Your task to perform on an android device: What's the news about the US? Image 0: 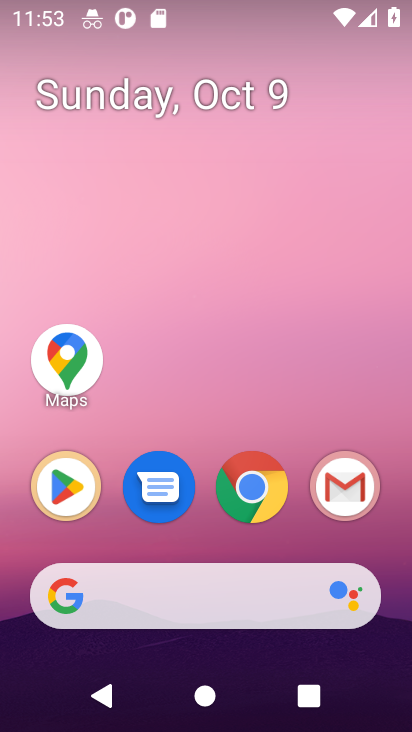
Step 0: click (271, 508)
Your task to perform on an android device: What's the news about the US? Image 1: 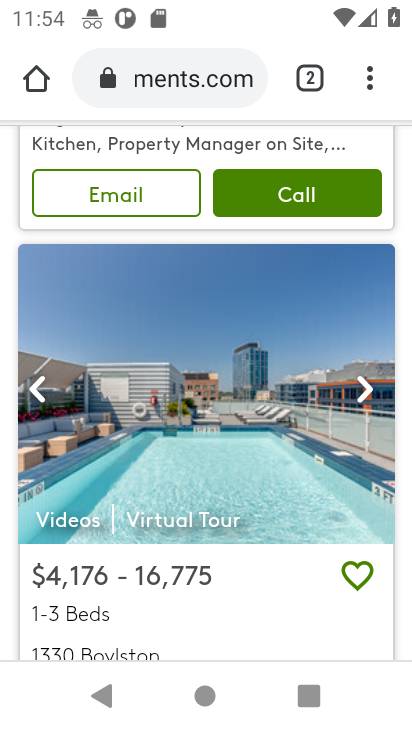
Step 1: click (194, 84)
Your task to perform on an android device: What's the news about the US? Image 2: 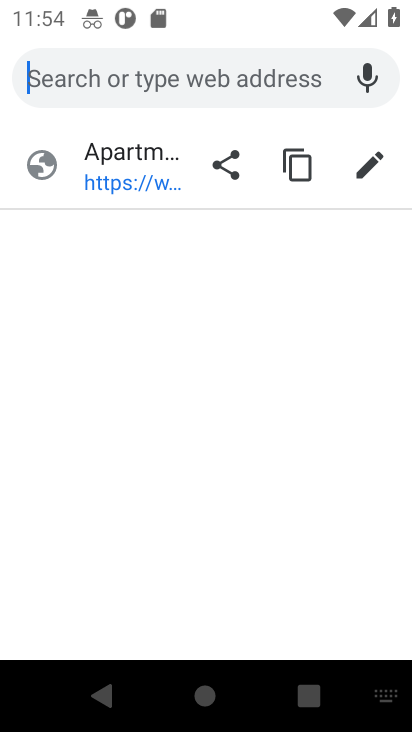
Step 2: type "news about the US"
Your task to perform on an android device: What's the news about the US? Image 3: 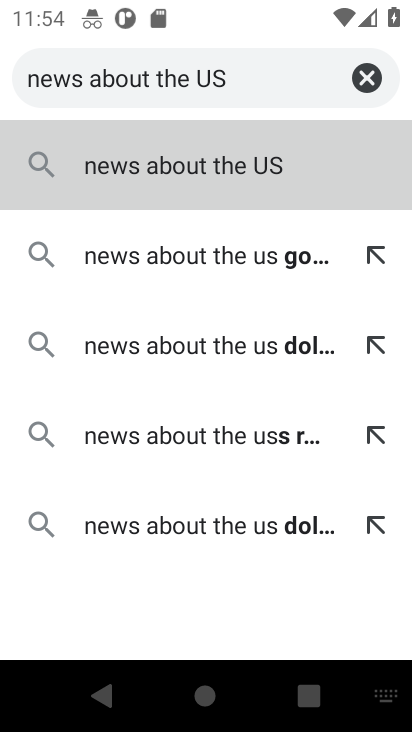
Step 3: type ""
Your task to perform on an android device: What's the news about the US? Image 4: 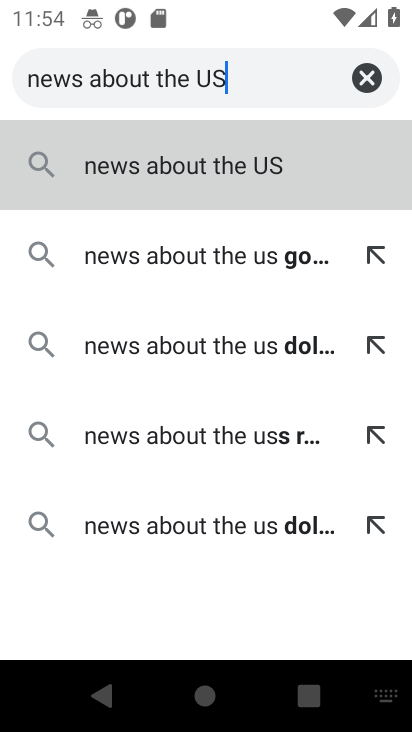
Step 4: press enter
Your task to perform on an android device: What's the news about the US? Image 5: 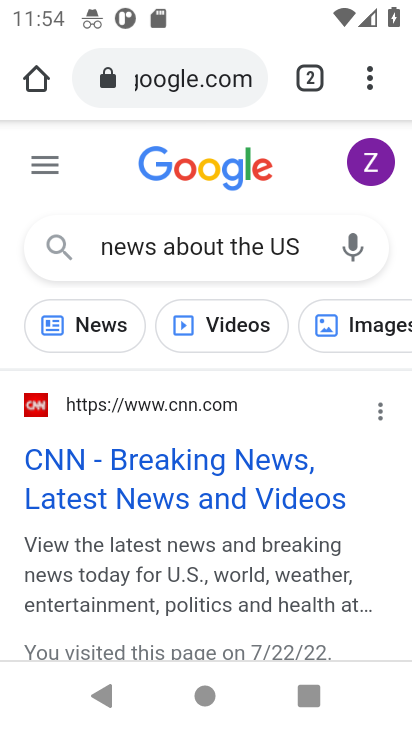
Step 5: press enter
Your task to perform on an android device: What's the news about the US? Image 6: 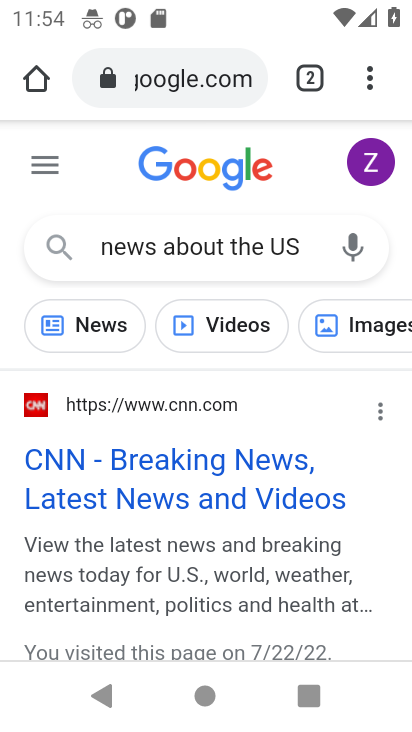
Step 6: drag from (225, 599) to (239, 540)
Your task to perform on an android device: What's the news about the US? Image 7: 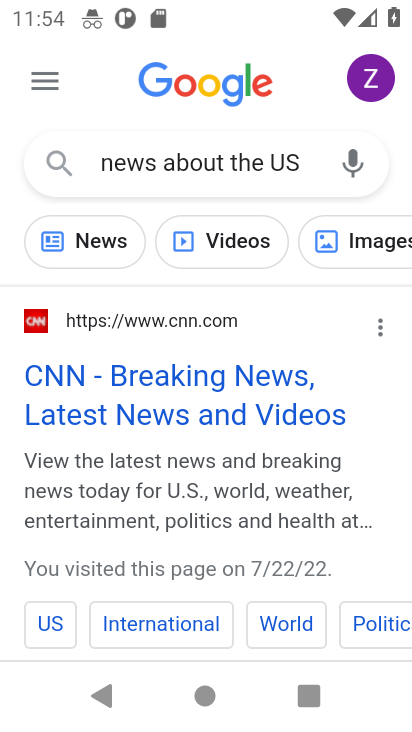
Step 7: click (94, 250)
Your task to perform on an android device: What's the news about the US? Image 8: 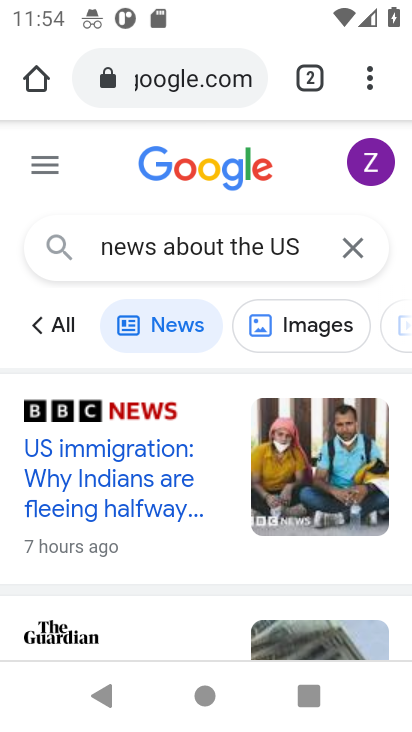
Step 8: task complete